Your task to perform on an android device: Open Android settings Image 0: 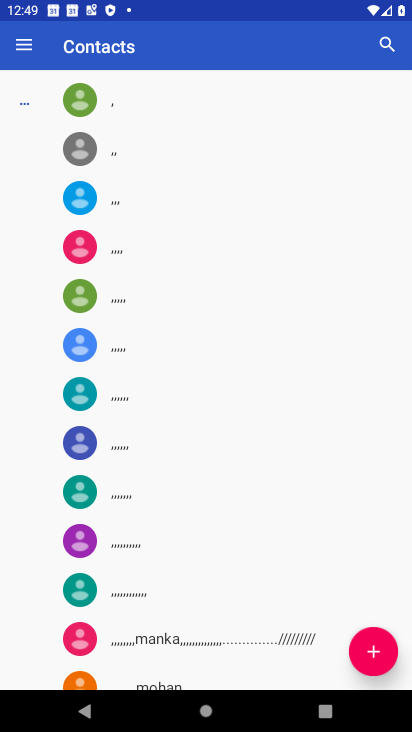
Step 0: press home button
Your task to perform on an android device: Open Android settings Image 1: 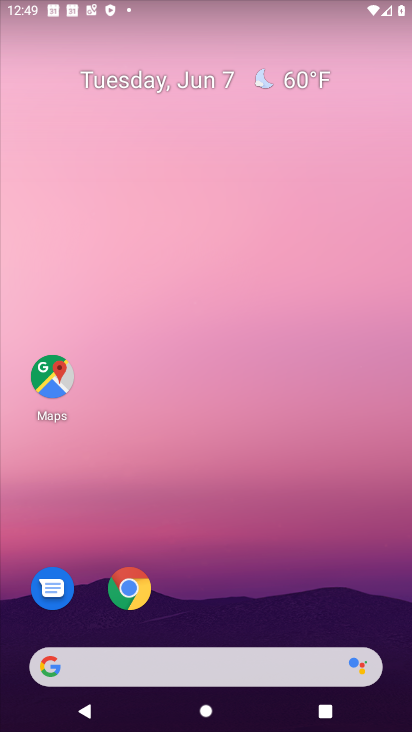
Step 1: drag from (253, 717) to (258, 4)
Your task to perform on an android device: Open Android settings Image 2: 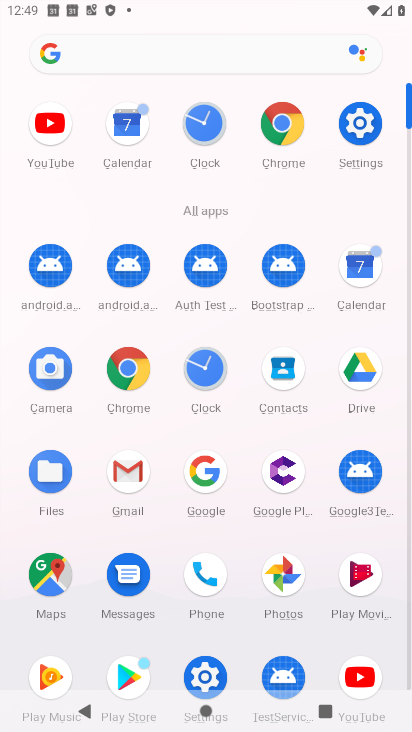
Step 2: click (363, 126)
Your task to perform on an android device: Open Android settings Image 3: 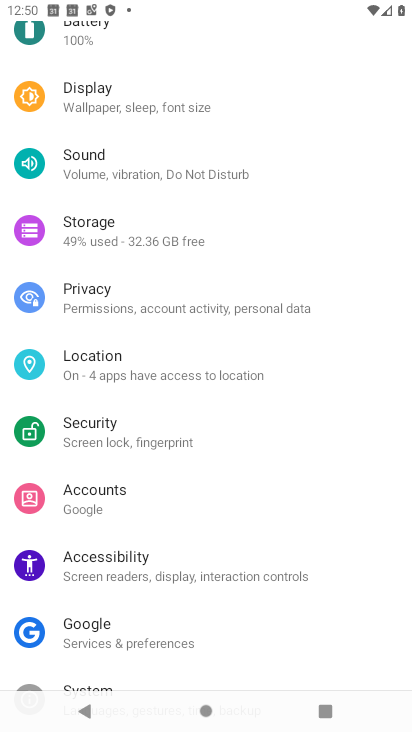
Step 3: drag from (192, 632) to (342, 138)
Your task to perform on an android device: Open Android settings Image 4: 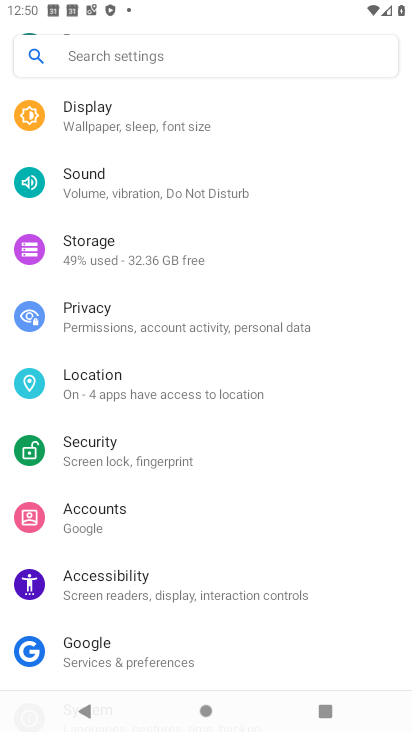
Step 4: drag from (152, 646) to (113, 53)
Your task to perform on an android device: Open Android settings Image 5: 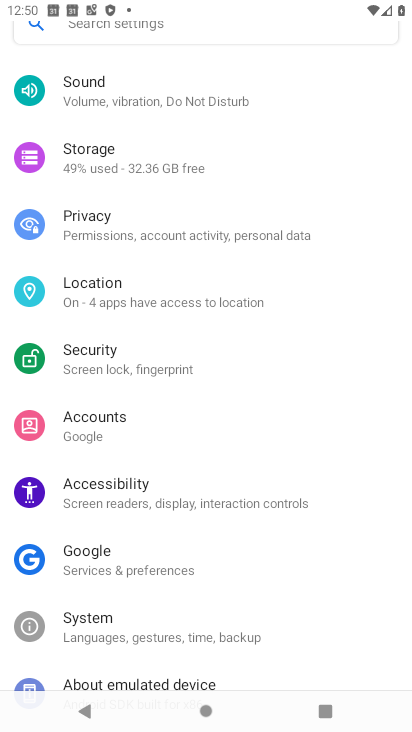
Step 5: click (203, 686)
Your task to perform on an android device: Open Android settings Image 6: 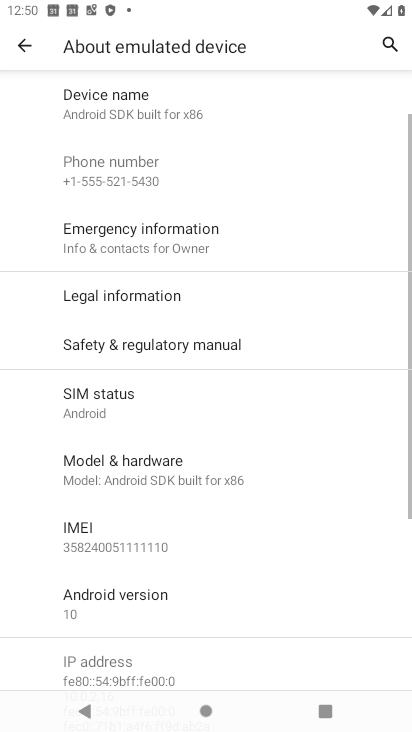
Step 6: task complete